Your task to perform on an android device: read, delete, or share a saved page in the chrome app Image 0: 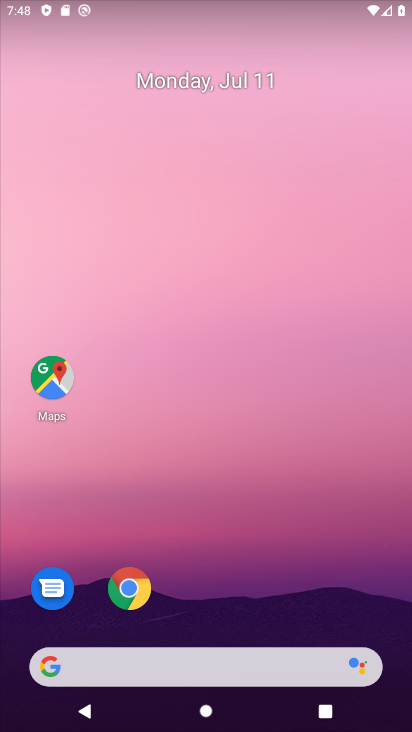
Step 0: press home button
Your task to perform on an android device: read, delete, or share a saved page in the chrome app Image 1: 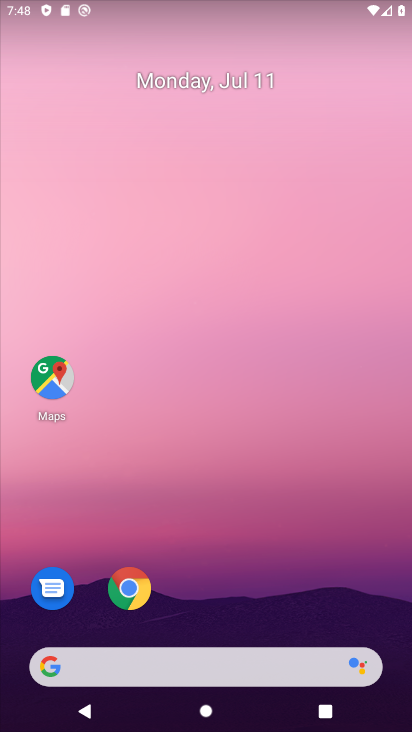
Step 1: drag from (238, 549) to (197, 1)
Your task to perform on an android device: read, delete, or share a saved page in the chrome app Image 2: 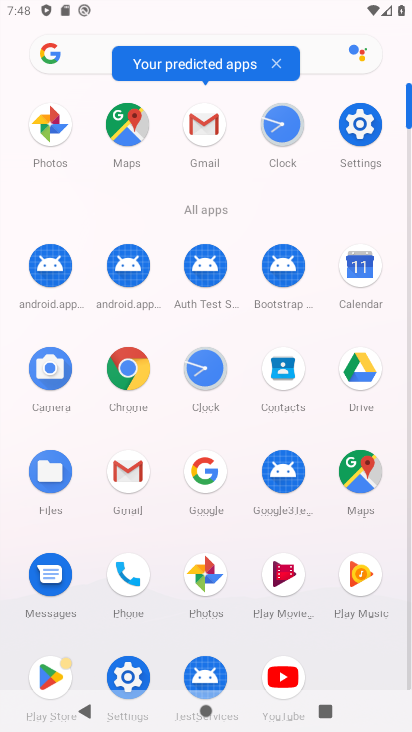
Step 2: click (132, 372)
Your task to perform on an android device: read, delete, or share a saved page in the chrome app Image 3: 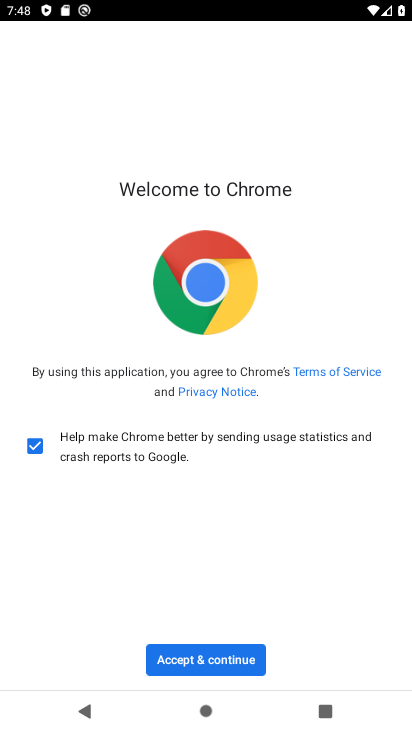
Step 3: click (233, 667)
Your task to perform on an android device: read, delete, or share a saved page in the chrome app Image 4: 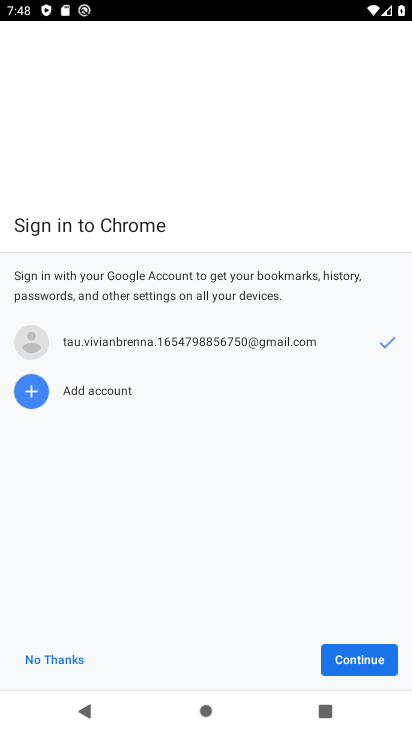
Step 4: click (333, 660)
Your task to perform on an android device: read, delete, or share a saved page in the chrome app Image 5: 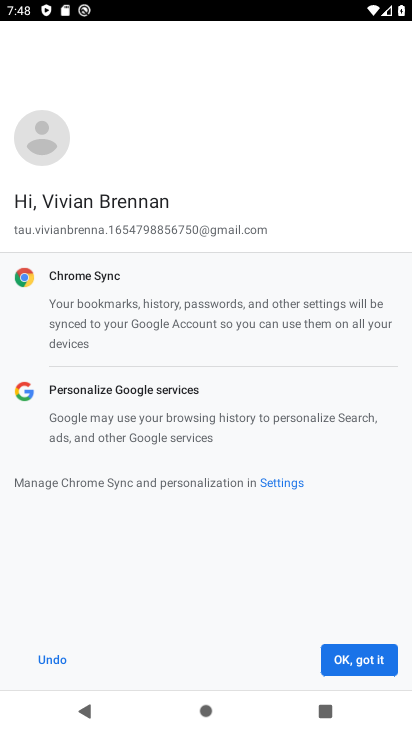
Step 5: click (347, 651)
Your task to perform on an android device: read, delete, or share a saved page in the chrome app Image 6: 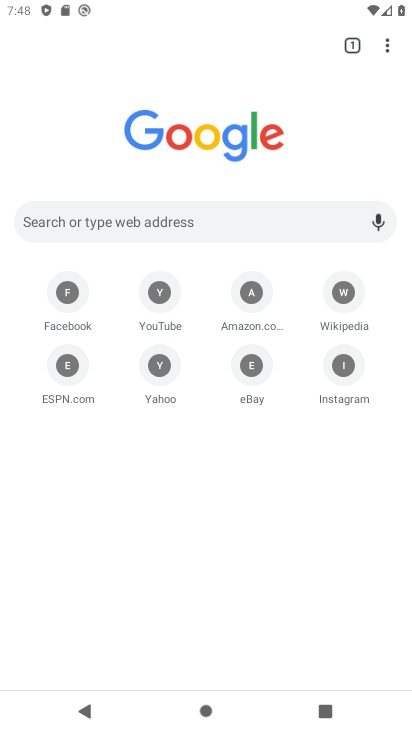
Step 6: drag from (388, 52) to (238, 305)
Your task to perform on an android device: read, delete, or share a saved page in the chrome app Image 7: 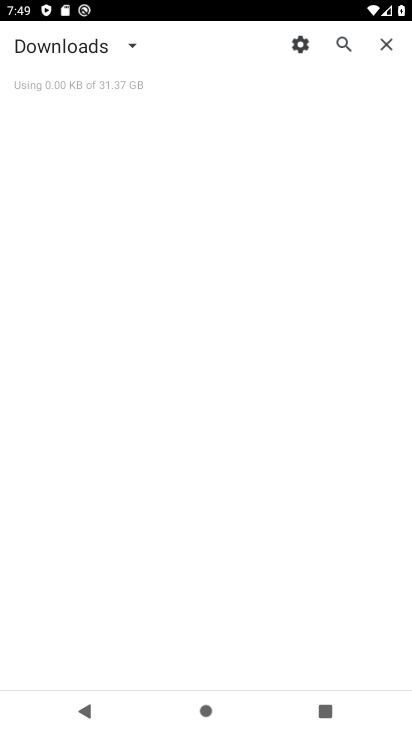
Step 7: click (134, 51)
Your task to perform on an android device: read, delete, or share a saved page in the chrome app Image 8: 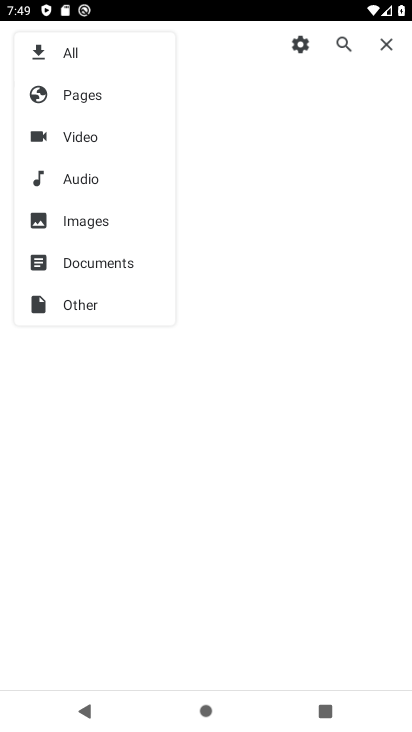
Step 8: click (86, 57)
Your task to perform on an android device: read, delete, or share a saved page in the chrome app Image 9: 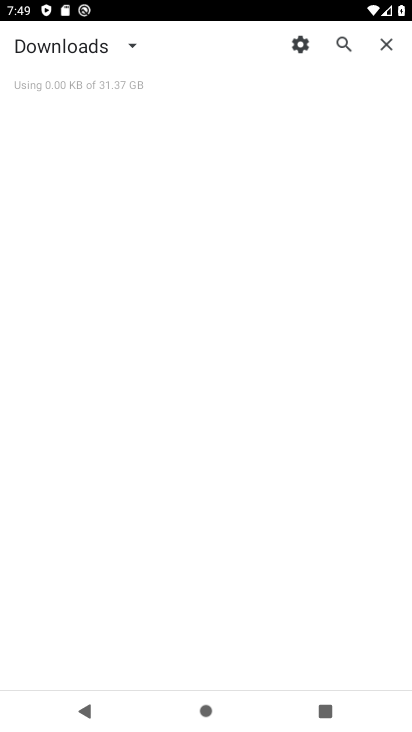
Step 9: task complete